Your task to perform on an android device: Open calendar and show me the fourth week of next month Image 0: 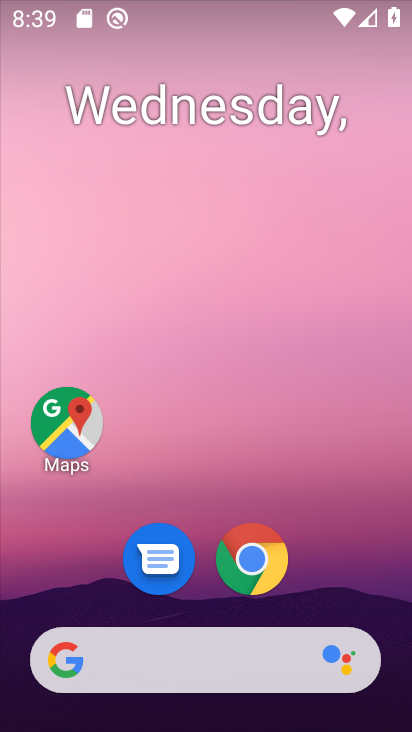
Step 0: drag from (361, 587) to (381, 168)
Your task to perform on an android device: Open calendar and show me the fourth week of next month Image 1: 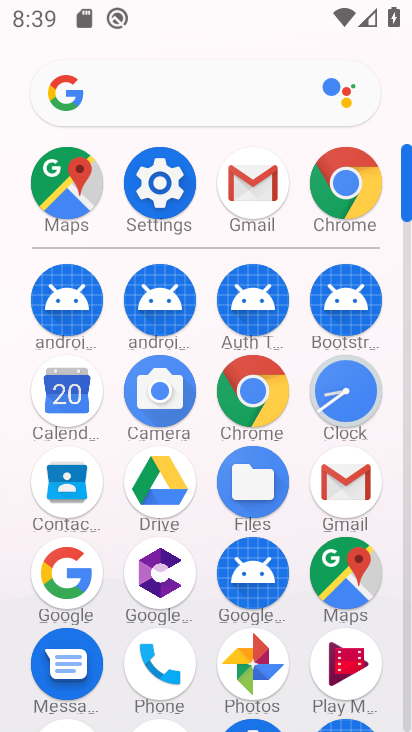
Step 1: click (64, 398)
Your task to perform on an android device: Open calendar and show me the fourth week of next month Image 2: 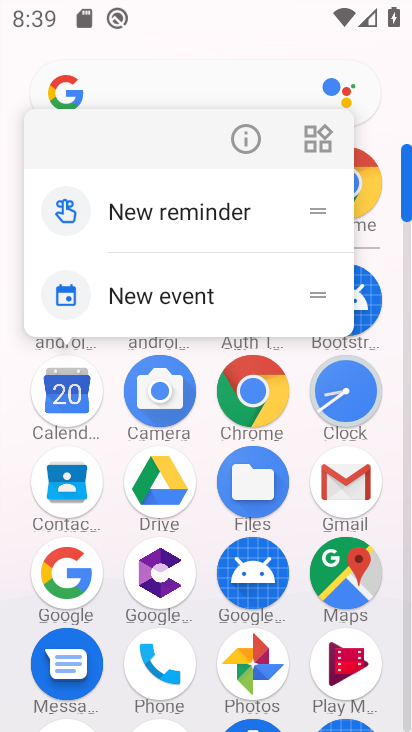
Step 2: click (68, 415)
Your task to perform on an android device: Open calendar and show me the fourth week of next month Image 3: 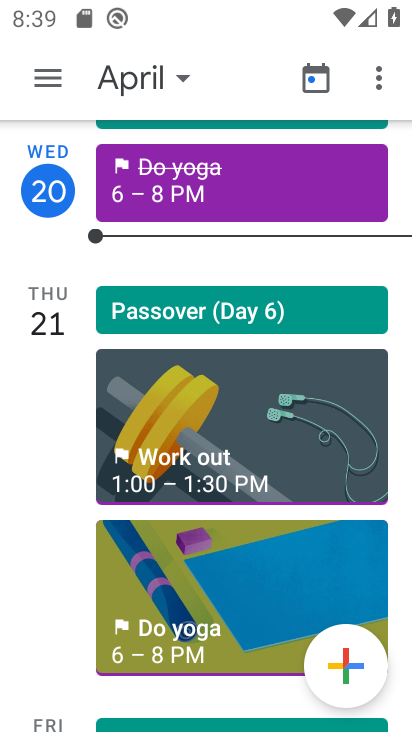
Step 3: click (115, 79)
Your task to perform on an android device: Open calendar and show me the fourth week of next month Image 4: 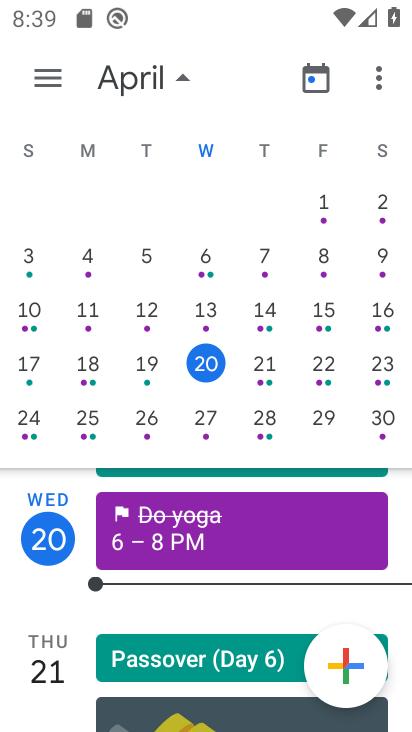
Step 4: drag from (351, 181) to (4, 204)
Your task to perform on an android device: Open calendar and show me the fourth week of next month Image 5: 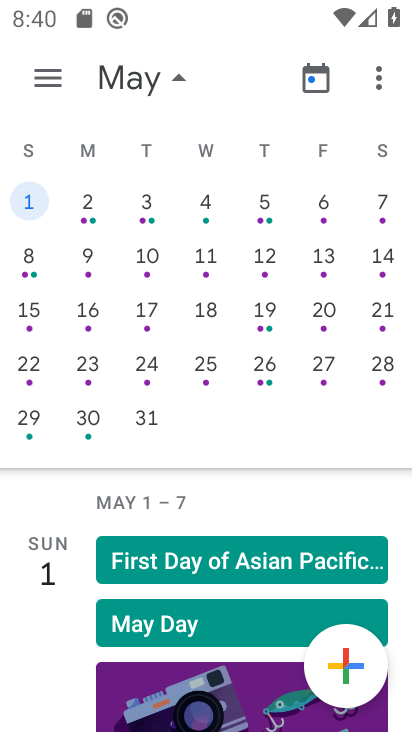
Step 5: click (21, 370)
Your task to perform on an android device: Open calendar and show me the fourth week of next month Image 6: 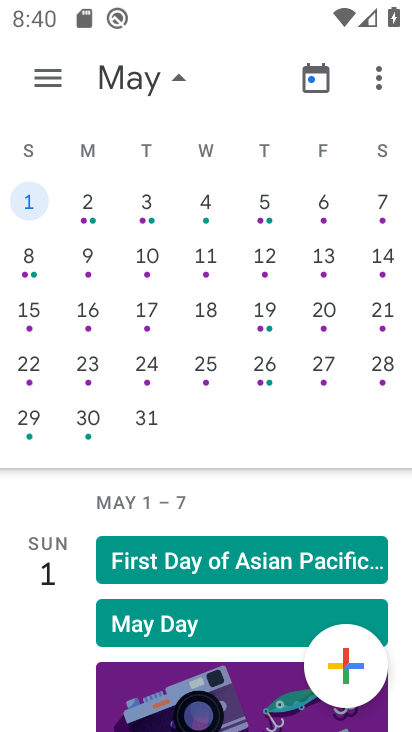
Step 6: click (33, 359)
Your task to perform on an android device: Open calendar and show me the fourth week of next month Image 7: 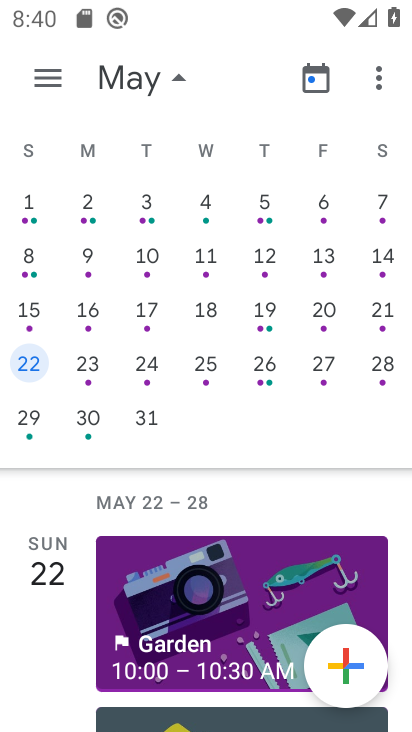
Step 7: task complete